Your task to perform on an android device: When is my next appointment? Image 0: 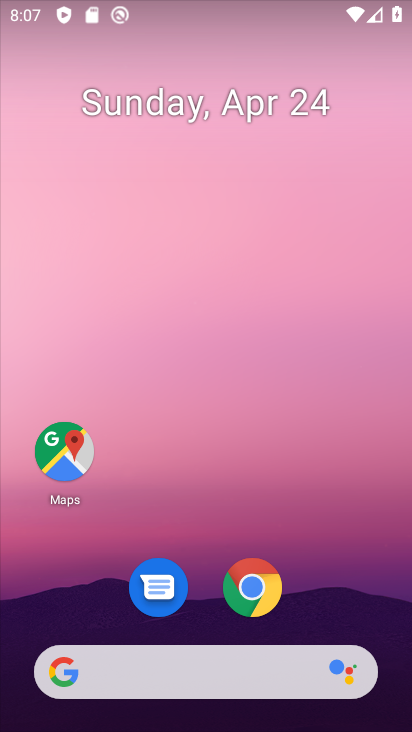
Step 0: drag from (219, 516) to (292, 53)
Your task to perform on an android device: When is my next appointment? Image 1: 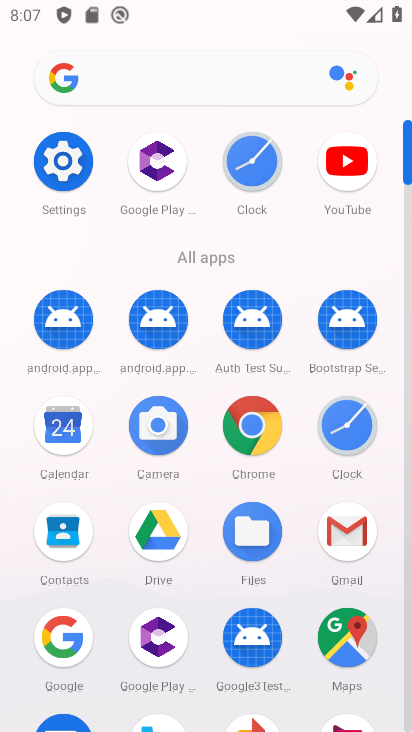
Step 1: click (67, 426)
Your task to perform on an android device: When is my next appointment? Image 2: 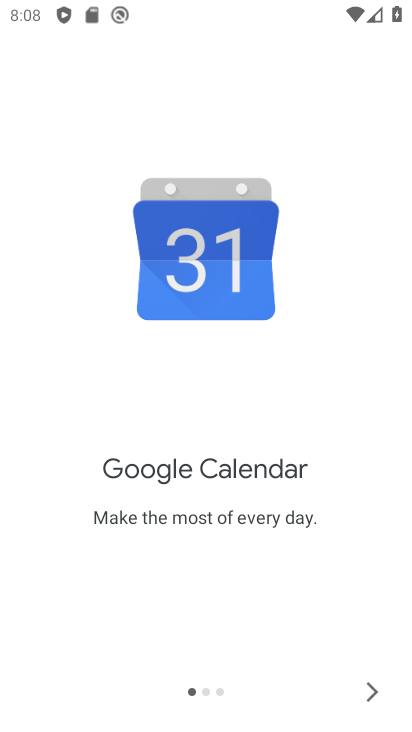
Step 2: click (378, 693)
Your task to perform on an android device: When is my next appointment? Image 3: 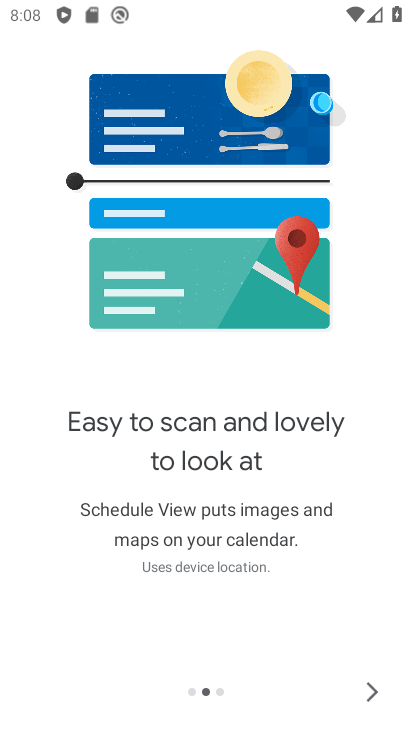
Step 3: click (378, 693)
Your task to perform on an android device: When is my next appointment? Image 4: 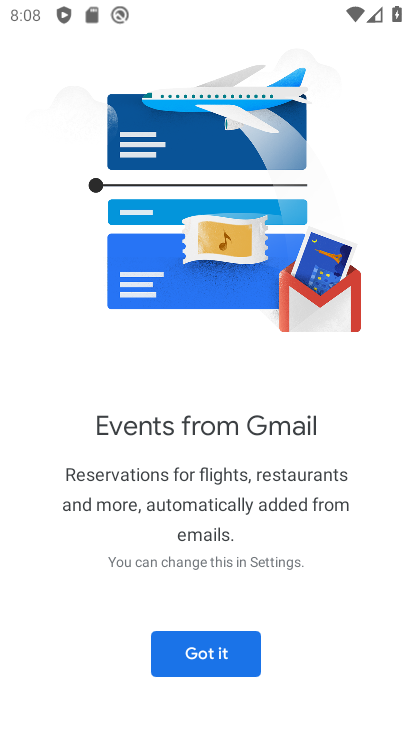
Step 4: click (179, 663)
Your task to perform on an android device: When is my next appointment? Image 5: 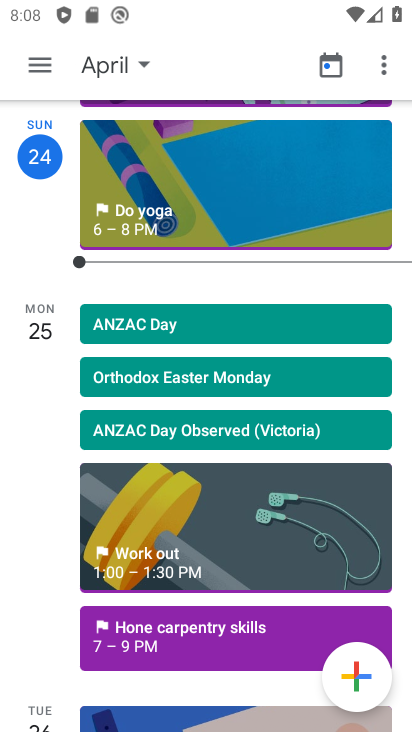
Step 5: click (41, 61)
Your task to perform on an android device: When is my next appointment? Image 6: 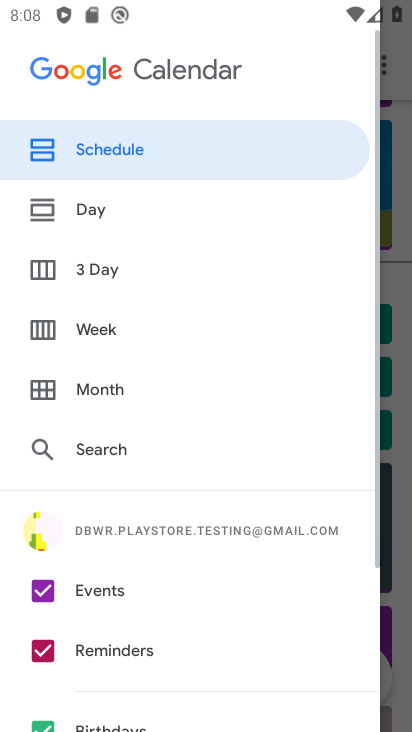
Step 6: click (108, 163)
Your task to perform on an android device: When is my next appointment? Image 7: 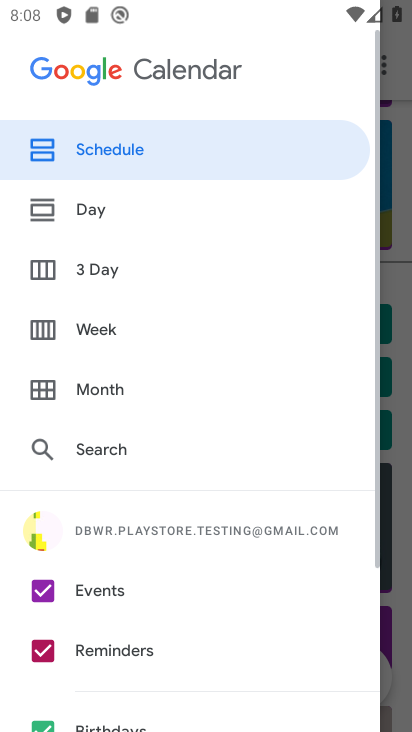
Step 7: click (189, 158)
Your task to perform on an android device: When is my next appointment? Image 8: 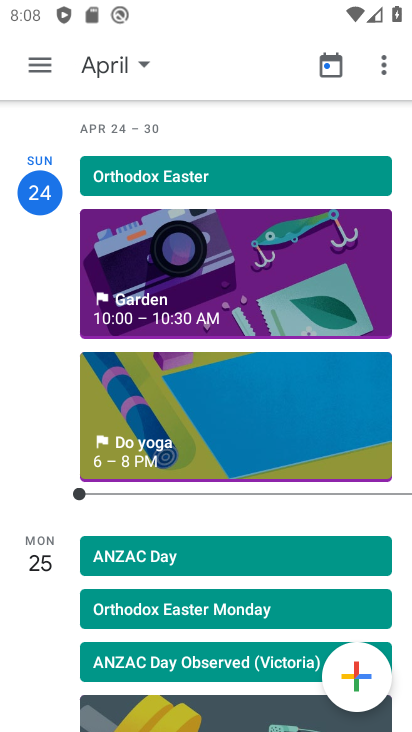
Step 8: drag from (196, 640) to (290, 242)
Your task to perform on an android device: When is my next appointment? Image 9: 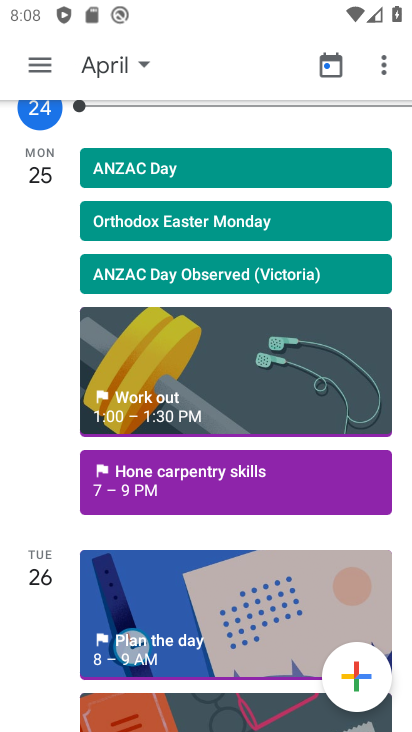
Step 9: drag from (195, 602) to (308, 172)
Your task to perform on an android device: When is my next appointment? Image 10: 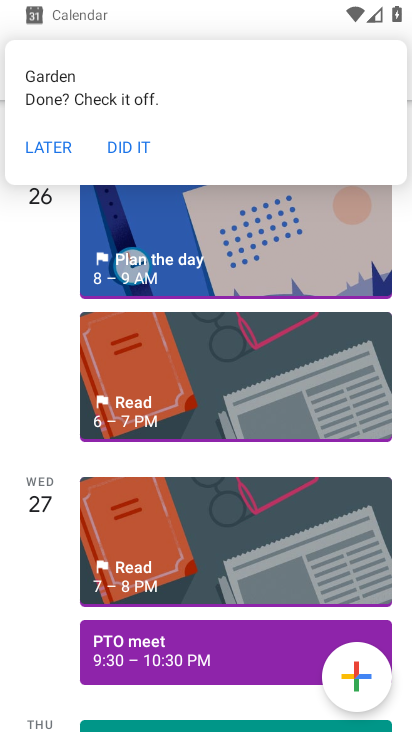
Step 10: drag from (205, 608) to (283, 274)
Your task to perform on an android device: When is my next appointment? Image 11: 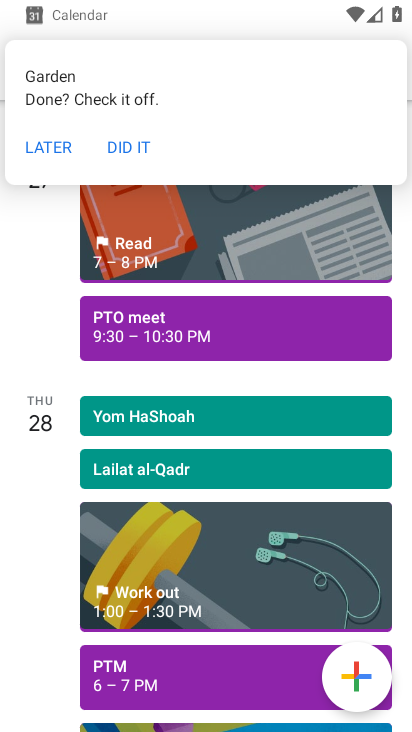
Step 11: click (64, 144)
Your task to perform on an android device: When is my next appointment? Image 12: 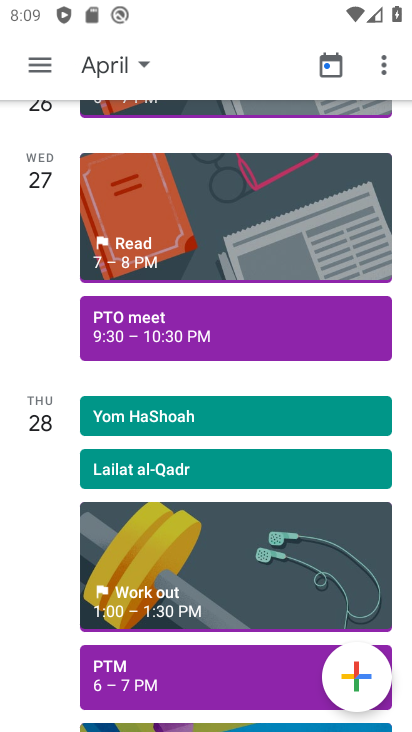
Step 12: drag from (154, 626) to (227, 480)
Your task to perform on an android device: When is my next appointment? Image 13: 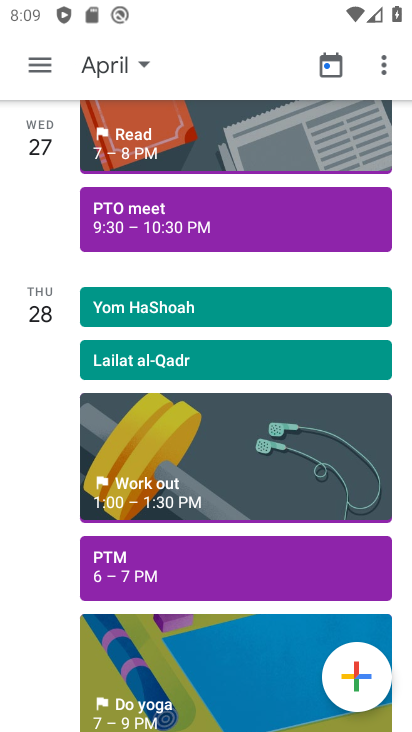
Step 13: click (165, 569)
Your task to perform on an android device: When is my next appointment? Image 14: 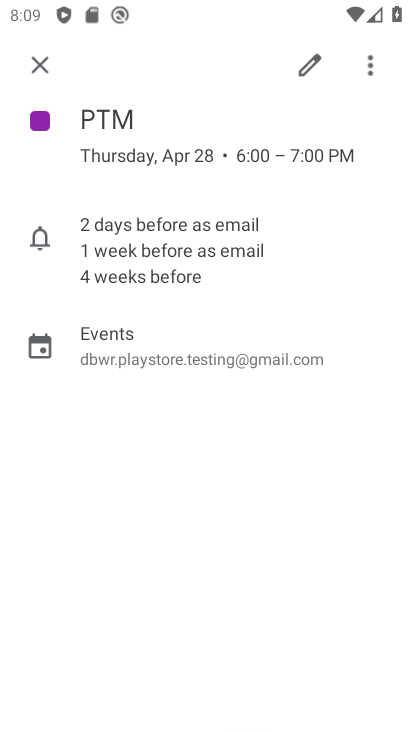
Step 14: click (34, 53)
Your task to perform on an android device: When is my next appointment? Image 15: 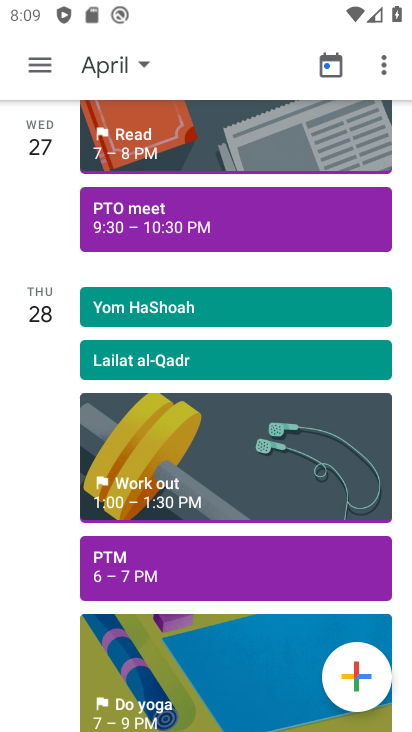
Step 15: click (143, 215)
Your task to perform on an android device: When is my next appointment? Image 16: 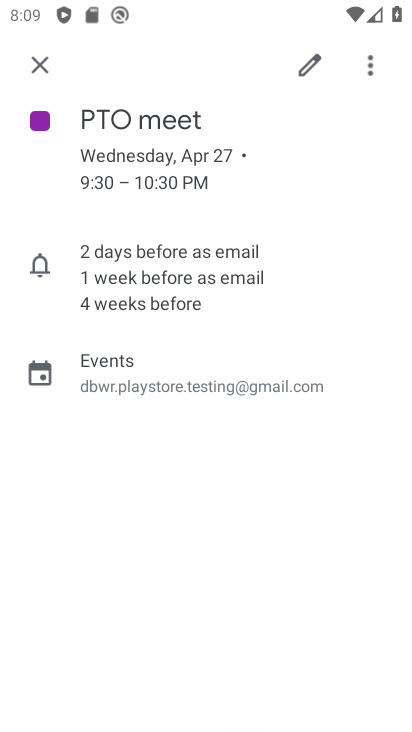
Step 16: task complete